Your task to perform on an android device: Set the phone to "Do not disturb". Image 0: 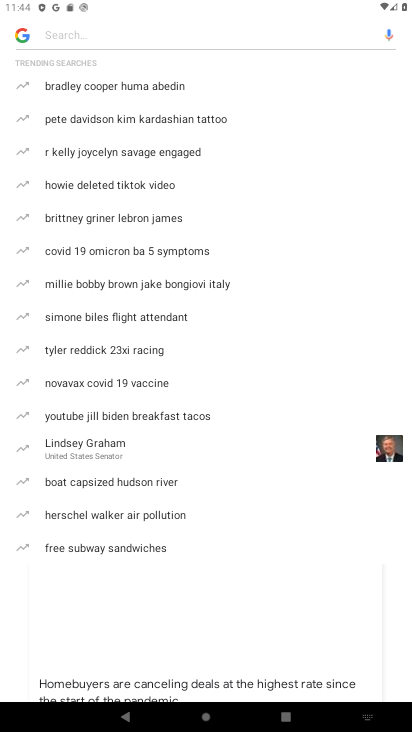
Step 0: press back button
Your task to perform on an android device: Set the phone to "Do not disturb". Image 1: 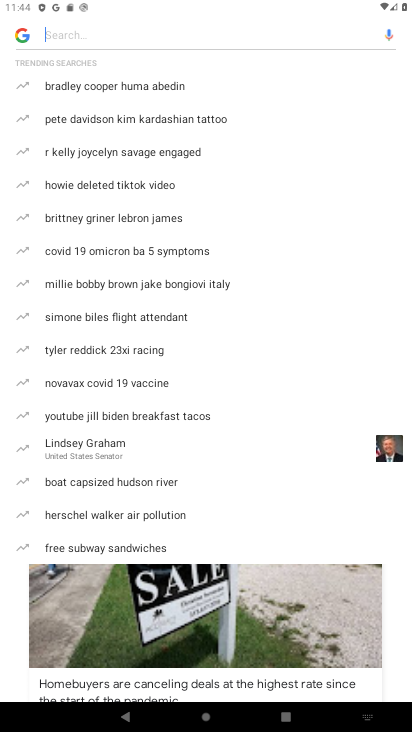
Step 1: press back button
Your task to perform on an android device: Set the phone to "Do not disturb". Image 2: 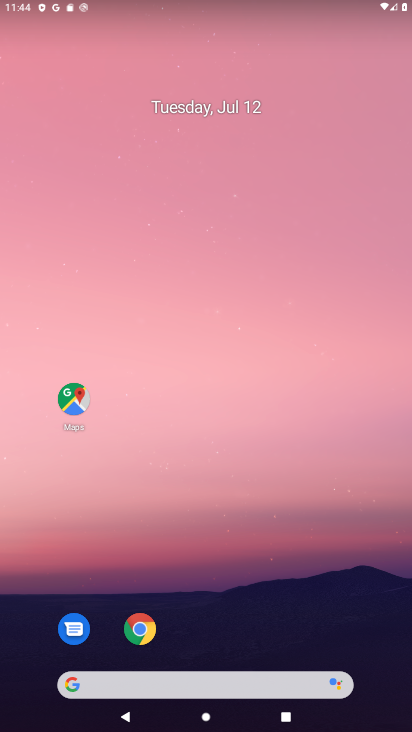
Step 2: press home button
Your task to perform on an android device: Set the phone to "Do not disturb". Image 3: 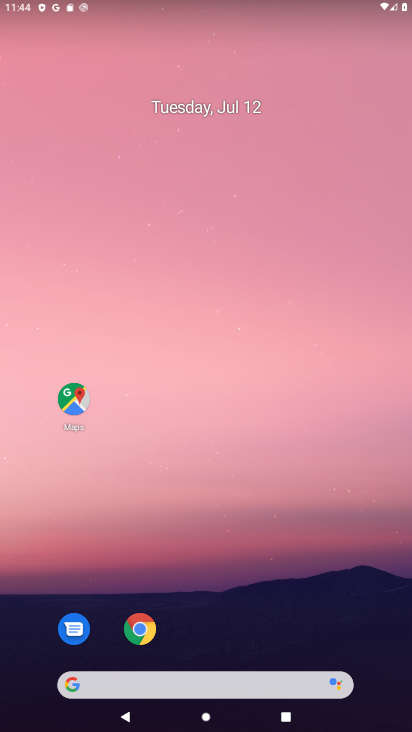
Step 3: press back button
Your task to perform on an android device: Set the phone to "Do not disturb". Image 4: 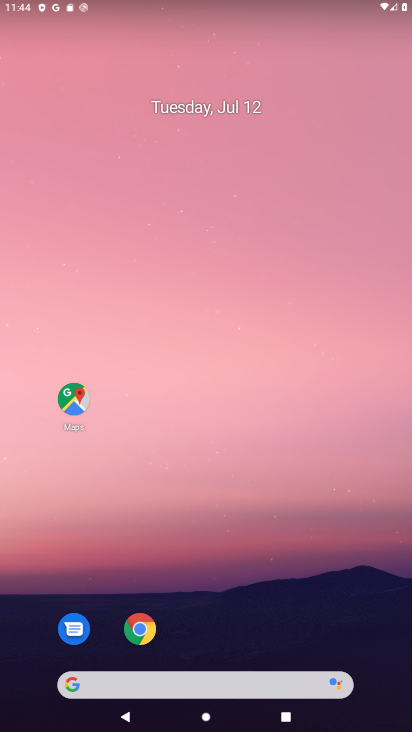
Step 4: drag from (157, 150) to (146, 62)
Your task to perform on an android device: Set the phone to "Do not disturb". Image 5: 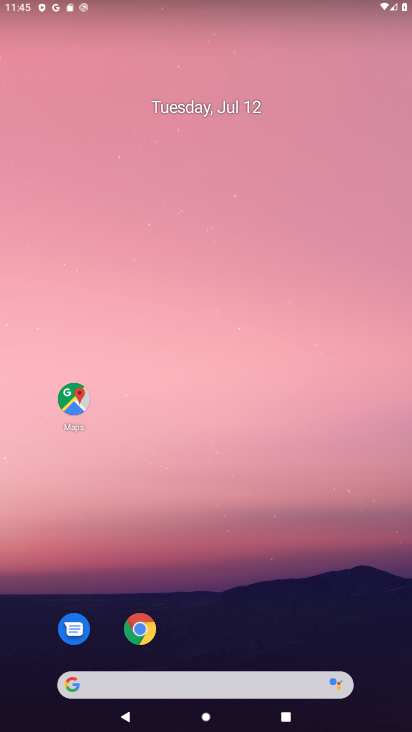
Step 5: click (256, 18)
Your task to perform on an android device: Set the phone to "Do not disturb". Image 6: 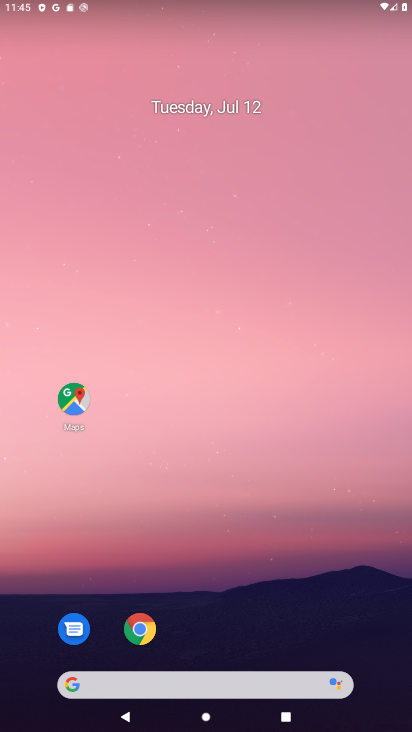
Step 6: click (164, 174)
Your task to perform on an android device: Set the phone to "Do not disturb". Image 7: 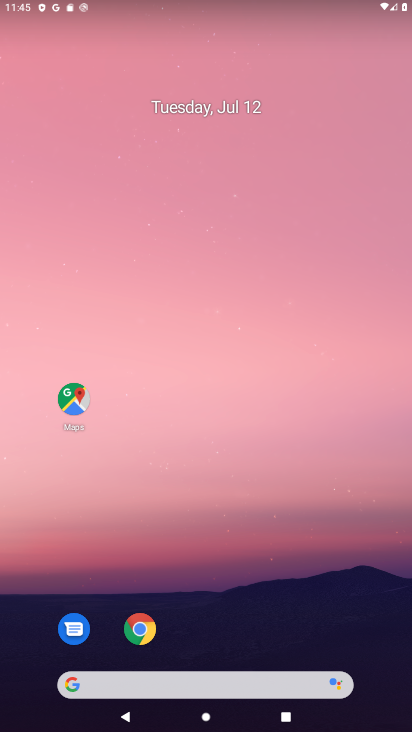
Step 7: drag from (281, 519) to (196, 180)
Your task to perform on an android device: Set the phone to "Do not disturb". Image 8: 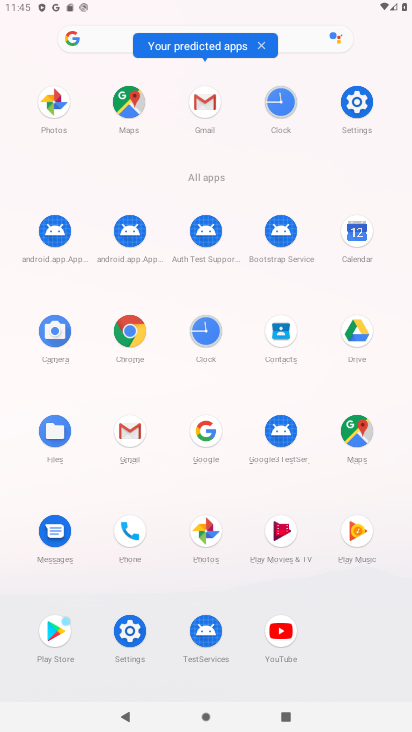
Step 8: drag from (274, 495) to (201, 78)
Your task to perform on an android device: Set the phone to "Do not disturb". Image 9: 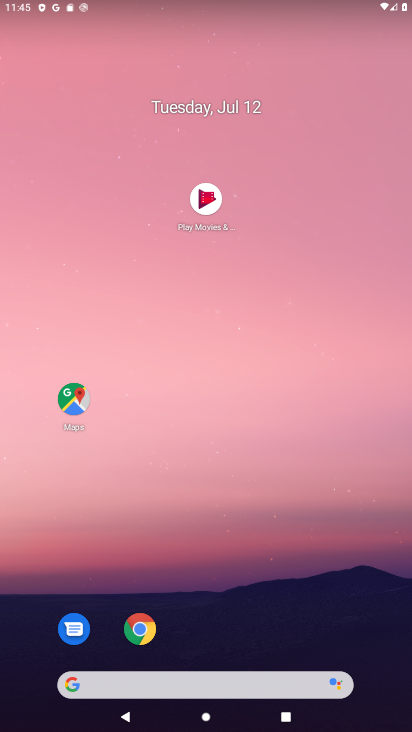
Step 9: drag from (187, 61) to (205, 149)
Your task to perform on an android device: Set the phone to "Do not disturb". Image 10: 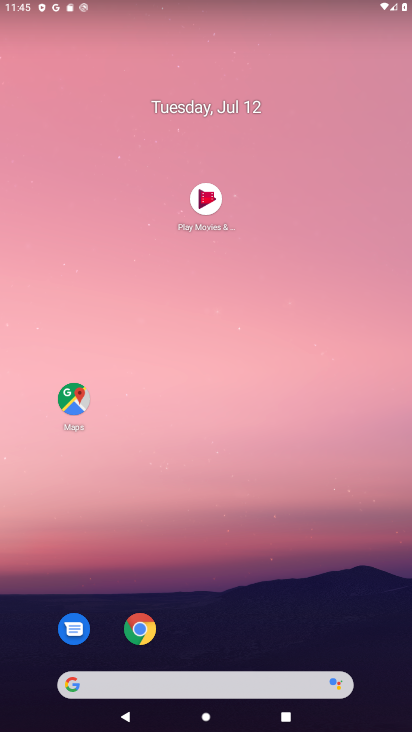
Step 10: drag from (168, 304) to (122, 23)
Your task to perform on an android device: Set the phone to "Do not disturb". Image 11: 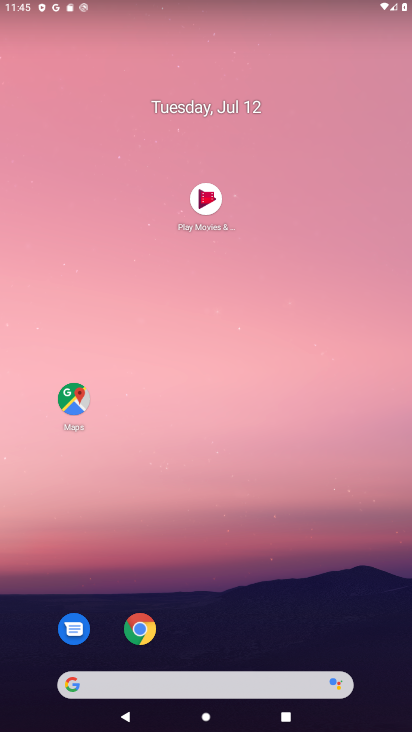
Step 11: drag from (168, 428) to (119, 233)
Your task to perform on an android device: Set the phone to "Do not disturb". Image 12: 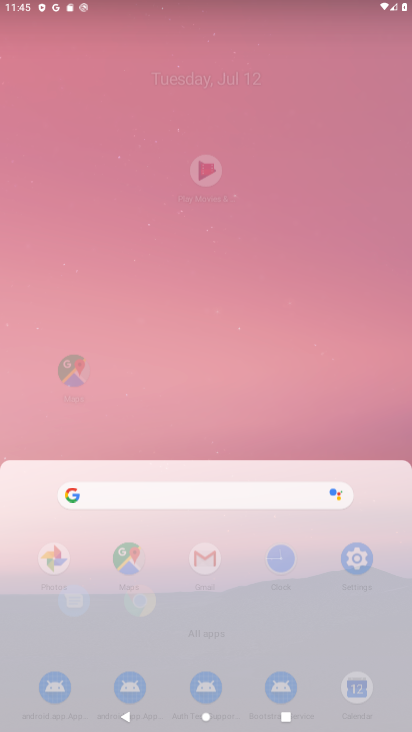
Step 12: drag from (193, 511) to (139, 92)
Your task to perform on an android device: Set the phone to "Do not disturb". Image 13: 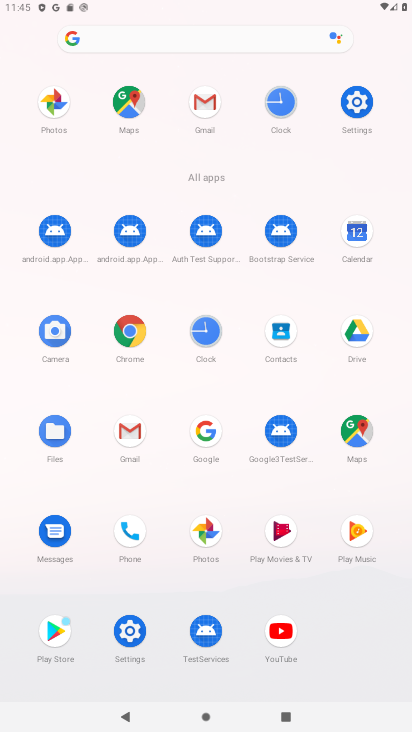
Step 13: drag from (219, 448) to (177, 157)
Your task to perform on an android device: Set the phone to "Do not disturb". Image 14: 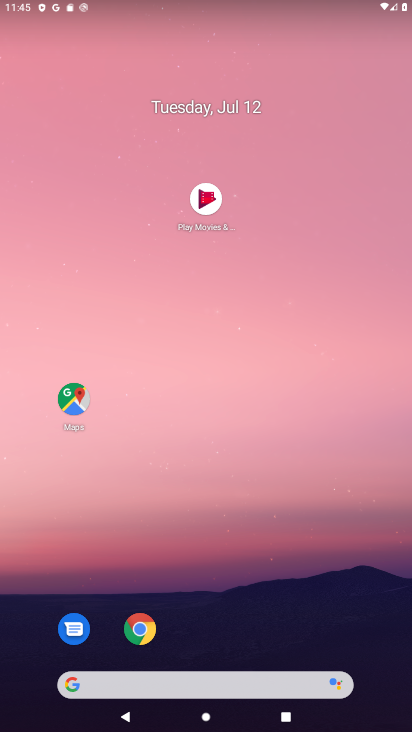
Step 14: drag from (194, 371) to (156, 231)
Your task to perform on an android device: Set the phone to "Do not disturb". Image 15: 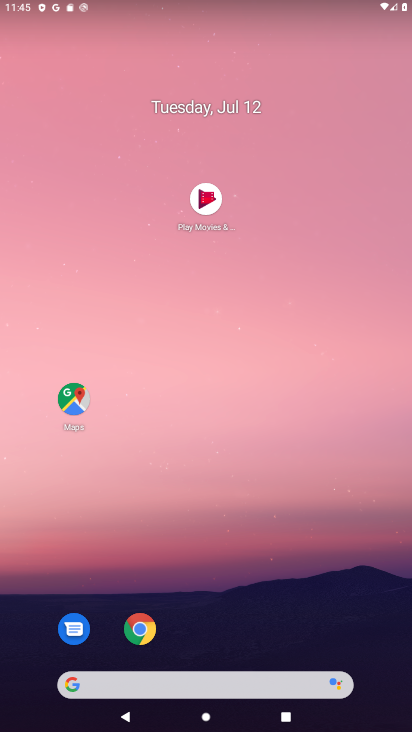
Step 15: drag from (236, 544) to (100, 34)
Your task to perform on an android device: Set the phone to "Do not disturb". Image 16: 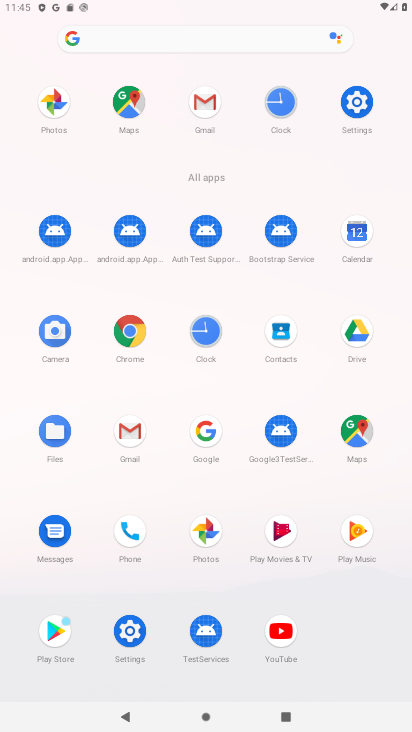
Step 16: click (126, 636)
Your task to perform on an android device: Set the phone to "Do not disturb". Image 17: 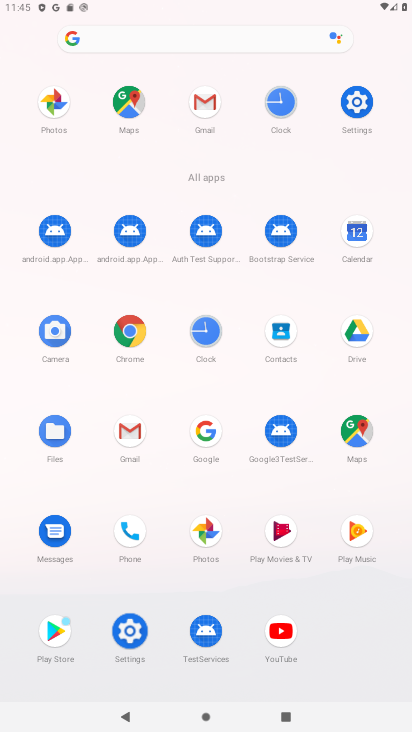
Step 17: click (132, 629)
Your task to perform on an android device: Set the phone to "Do not disturb". Image 18: 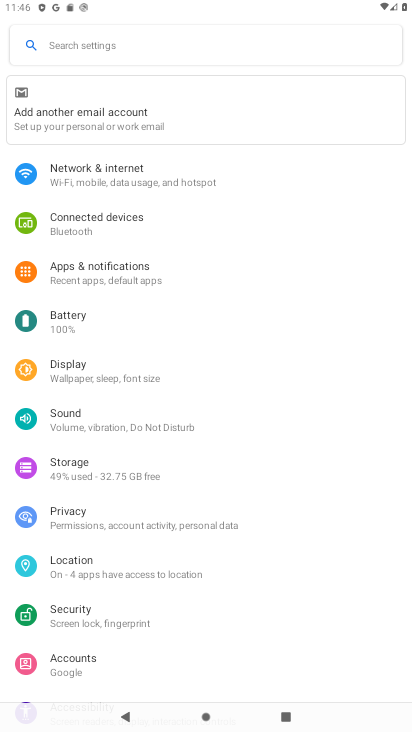
Step 18: click (96, 426)
Your task to perform on an android device: Set the phone to "Do not disturb". Image 19: 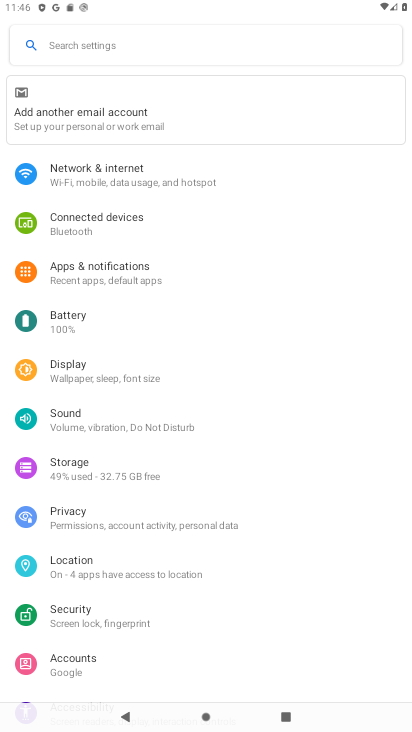
Step 19: click (129, 428)
Your task to perform on an android device: Set the phone to "Do not disturb". Image 20: 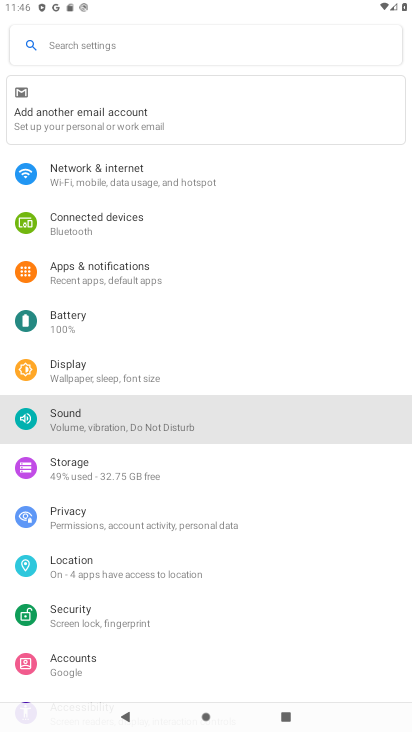
Step 20: click (130, 429)
Your task to perform on an android device: Set the phone to "Do not disturb". Image 21: 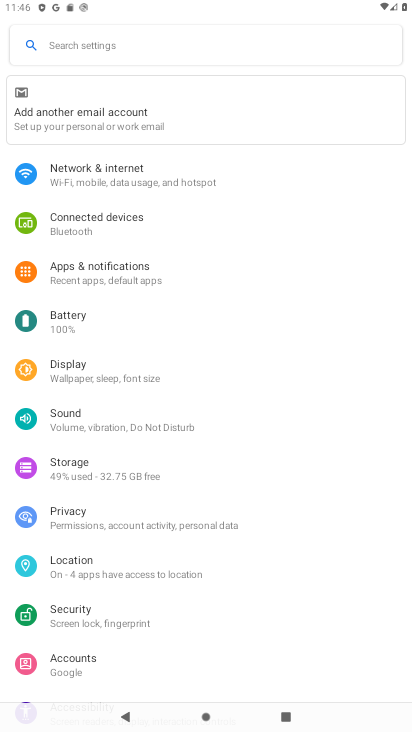
Step 21: click (130, 429)
Your task to perform on an android device: Set the phone to "Do not disturb". Image 22: 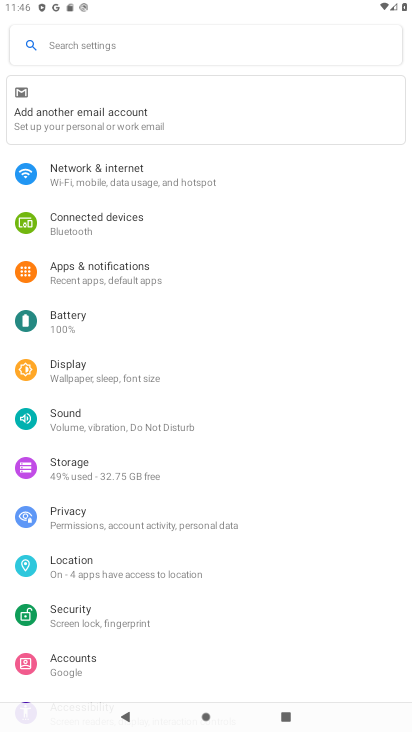
Step 22: click (130, 429)
Your task to perform on an android device: Set the phone to "Do not disturb". Image 23: 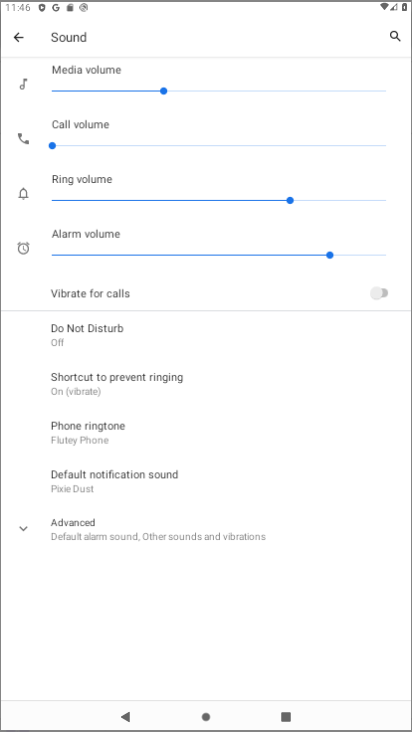
Step 23: click (130, 429)
Your task to perform on an android device: Set the phone to "Do not disturb". Image 24: 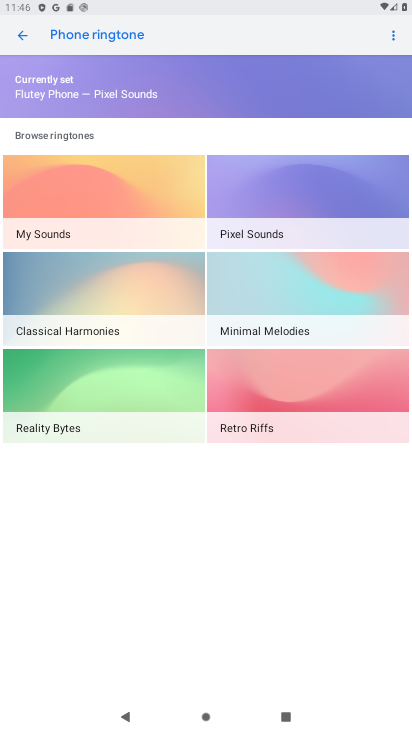
Step 24: task complete